Your task to perform on an android device: Search for "razer blade" on walmart.com, select the first entry, add it to the cart, then select checkout. Image 0: 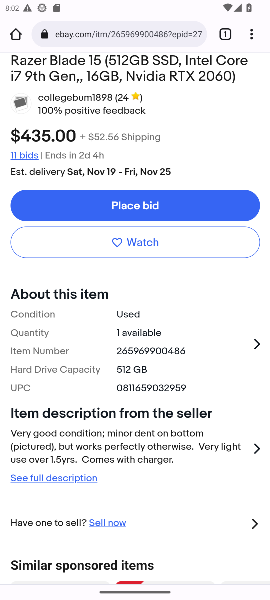
Step 0: press home button
Your task to perform on an android device: Search for "razer blade" on walmart.com, select the first entry, add it to the cart, then select checkout. Image 1: 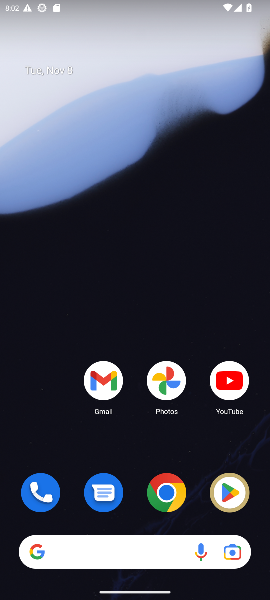
Step 1: click (176, 491)
Your task to perform on an android device: Search for "razer blade" on walmart.com, select the first entry, add it to the cart, then select checkout. Image 2: 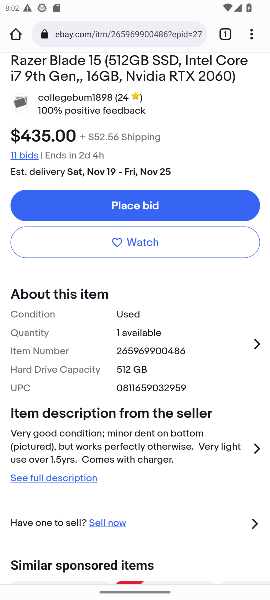
Step 2: click (86, 31)
Your task to perform on an android device: Search for "razer blade" on walmart.com, select the first entry, add it to the cart, then select checkout. Image 3: 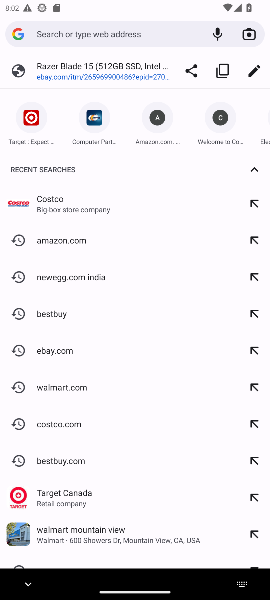
Step 3: type "walmart.com"
Your task to perform on an android device: Search for "razer blade" on walmart.com, select the first entry, add it to the cart, then select checkout. Image 4: 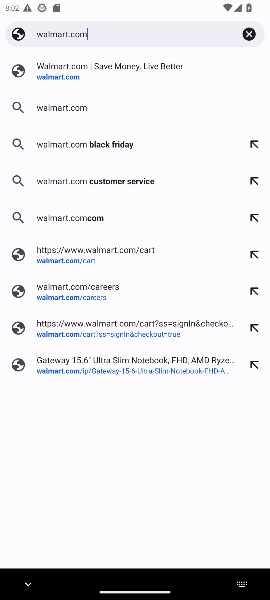
Step 4: press enter
Your task to perform on an android device: Search for "razer blade" on walmart.com, select the first entry, add it to the cart, then select checkout. Image 5: 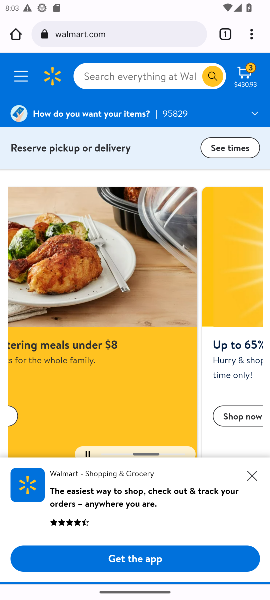
Step 5: click (255, 480)
Your task to perform on an android device: Search for "razer blade" on walmart.com, select the first entry, add it to the cart, then select checkout. Image 6: 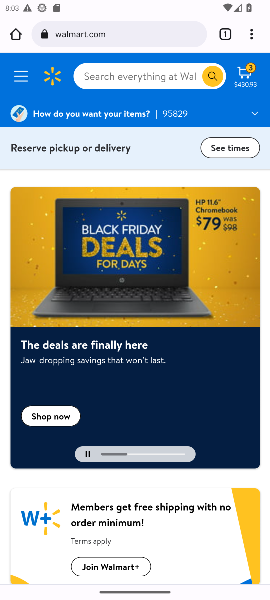
Step 6: click (132, 72)
Your task to perform on an android device: Search for "razer blade" on walmart.com, select the first entry, add it to the cart, then select checkout. Image 7: 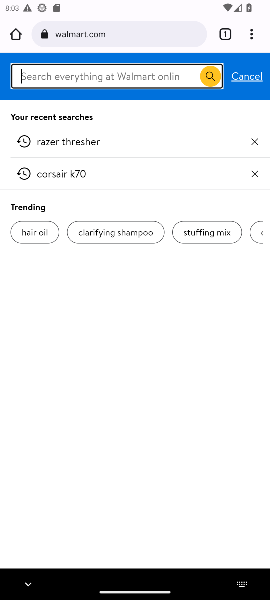
Step 7: type "razer blade"
Your task to perform on an android device: Search for "razer blade" on walmart.com, select the first entry, add it to the cart, then select checkout. Image 8: 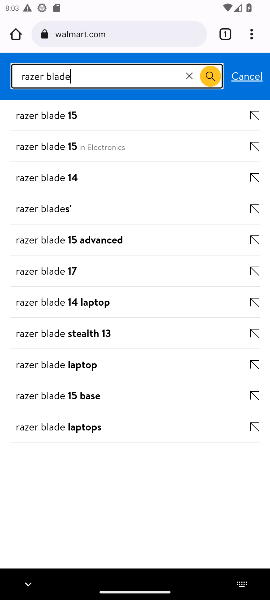
Step 8: press enter
Your task to perform on an android device: Search for "razer blade" on walmart.com, select the first entry, add it to the cart, then select checkout. Image 9: 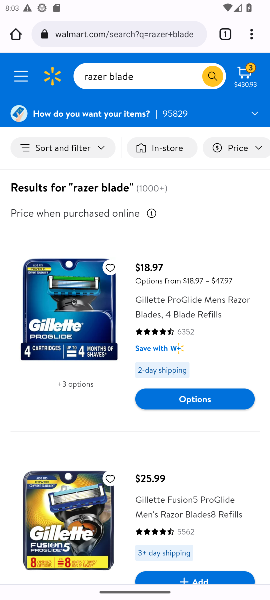
Step 9: drag from (218, 518) to (128, 597)
Your task to perform on an android device: Search for "razer blade" on walmart.com, select the first entry, add it to the cart, then select checkout. Image 10: 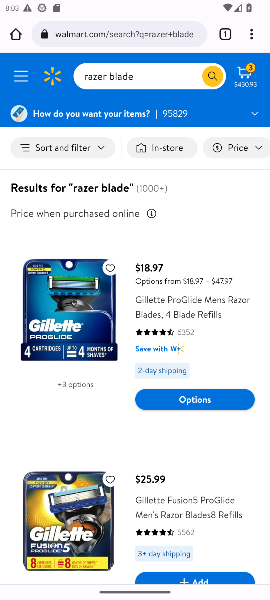
Step 10: click (172, 404)
Your task to perform on an android device: Search for "razer blade" on walmart.com, select the first entry, add it to the cart, then select checkout. Image 11: 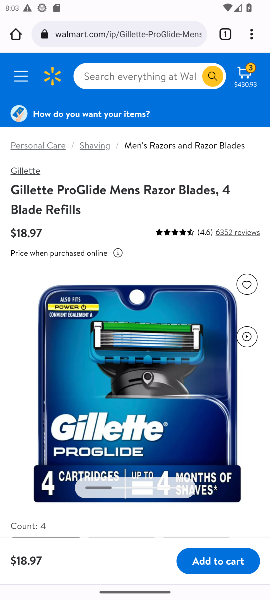
Step 11: drag from (162, 449) to (162, 308)
Your task to perform on an android device: Search for "razer blade" on walmart.com, select the first entry, add it to the cart, then select checkout. Image 12: 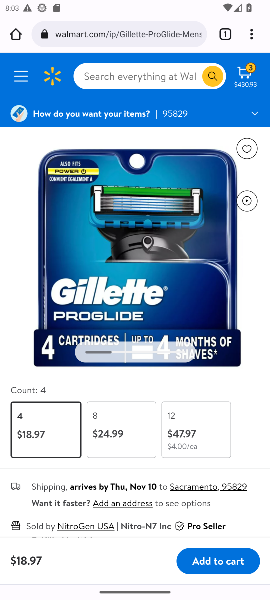
Step 12: click (218, 560)
Your task to perform on an android device: Search for "razer blade" on walmart.com, select the first entry, add it to the cart, then select checkout. Image 13: 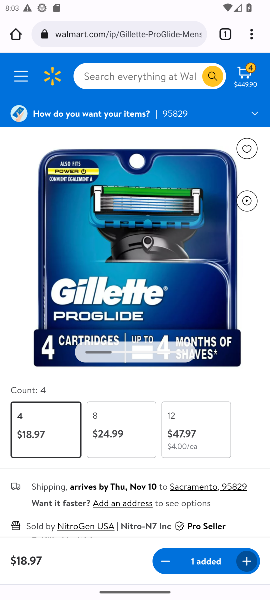
Step 13: click (243, 82)
Your task to perform on an android device: Search for "razer blade" on walmart.com, select the first entry, add it to the cart, then select checkout. Image 14: 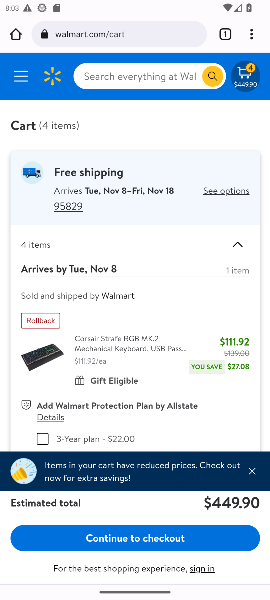
Step 14: click (126, 543)
Your task to perform on an android device: Search for "razer blade" on walmart.com, select the first entry, add it to the cart, then select checkout. Image 15: 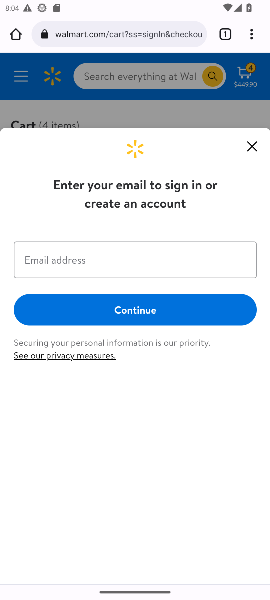
Step 15: task complete